Your task to perform on an android device: turn on bluetooth scan Image 0: 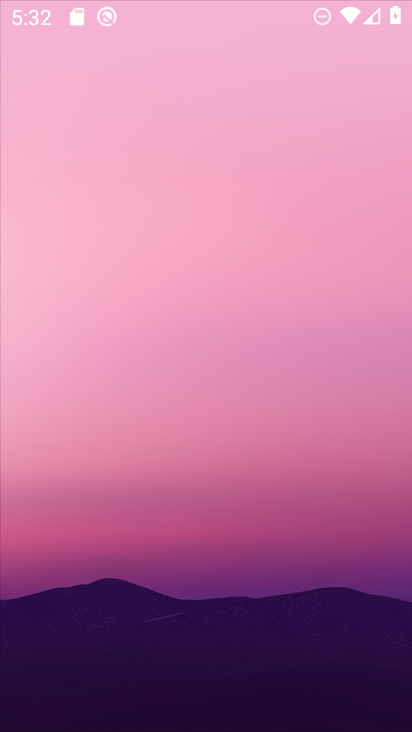
Step 0: drag from (344, 576) to (206, 58)
Your task to perform on an android device: turn on bluetooth scan Image 1: 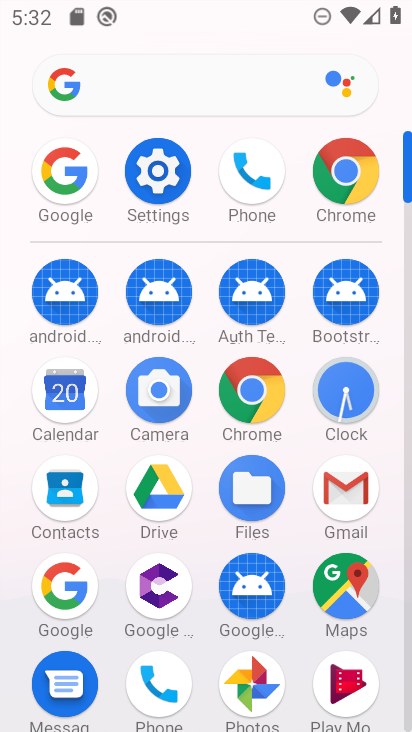
Step 1: click (160, 173)
Your task to perform on an android device: turn on bluetooth scan Image 2: 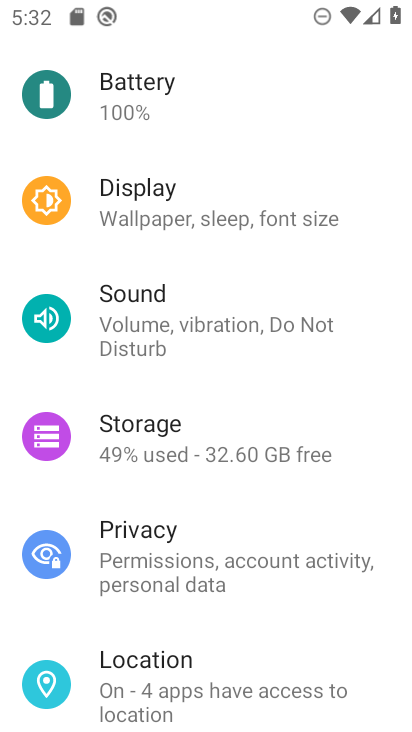
Step 2: drag from (253, 173) to (158, 707)
Your task to perform on an android device: turn on bluetooth scan Image 3: 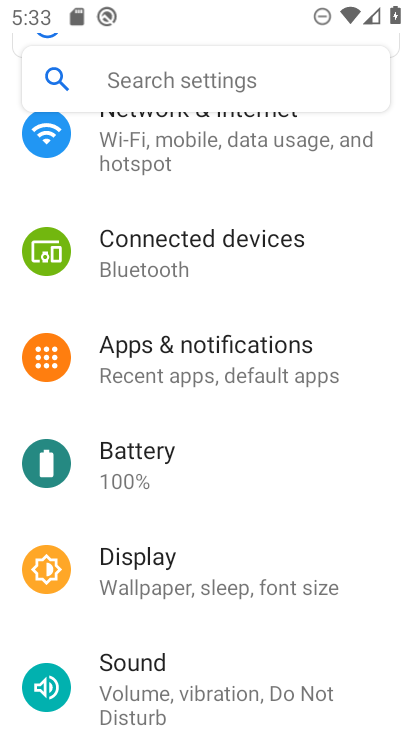
Step 3: drag from (261, 591) to (212, 116)
Your task to perform on an android device: turn on bluetooth scan Image 4: 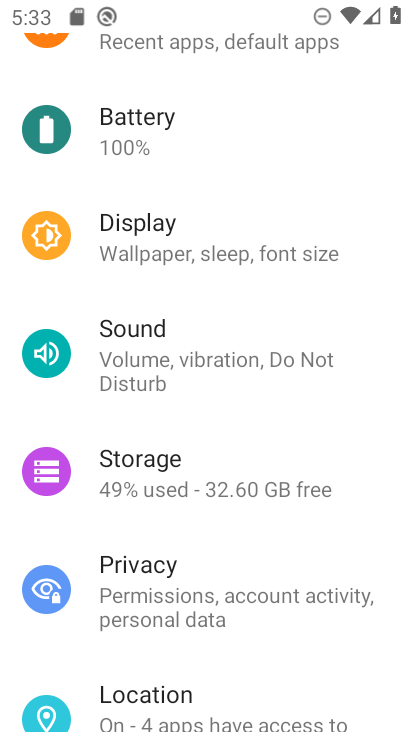
Step 4: click (268, 700)
Your task to perform on an android device: turn on bluetooth scan Image 5: 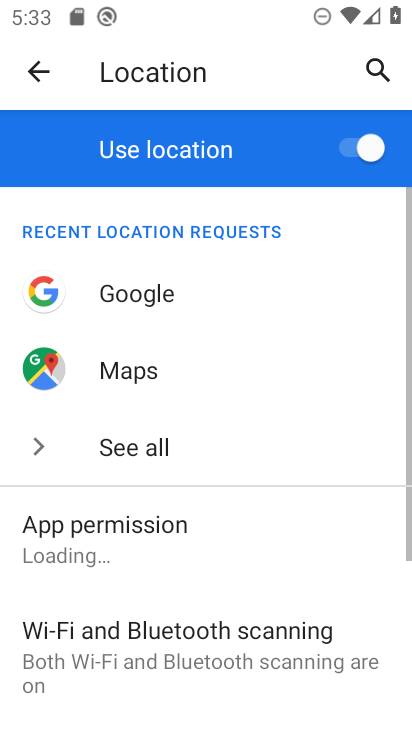
Step 5: click (261, 640)
Your task to perform on an android device: turn on bluetooth scan Image 6: 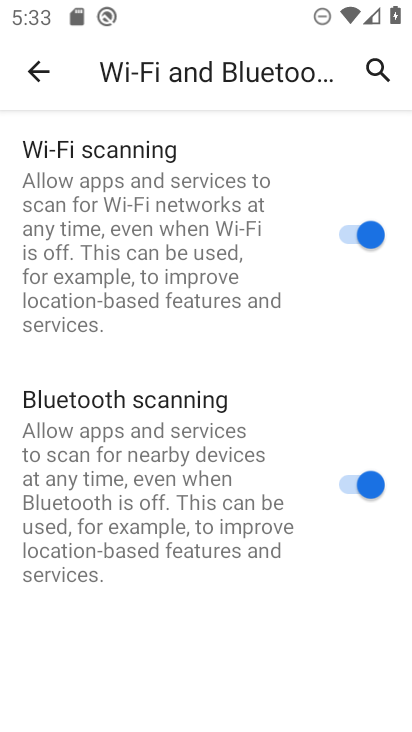
Step 6: task complete